Your task to perform on an android device: check android version Image 0: 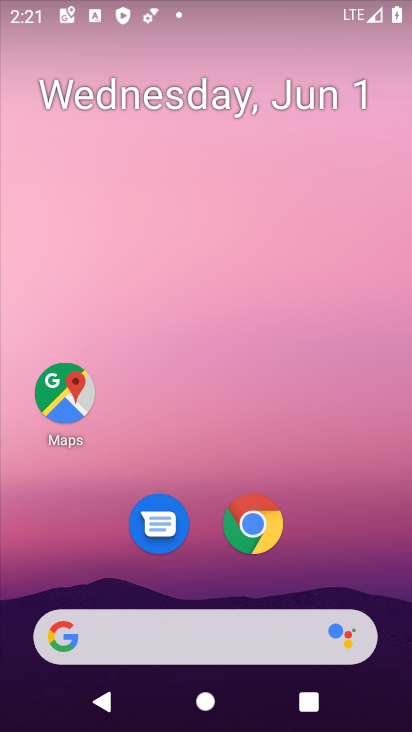
Step 0: drag from (321, 534) to (294, 43)
Your task to perform on an android device: check android version Image 1: 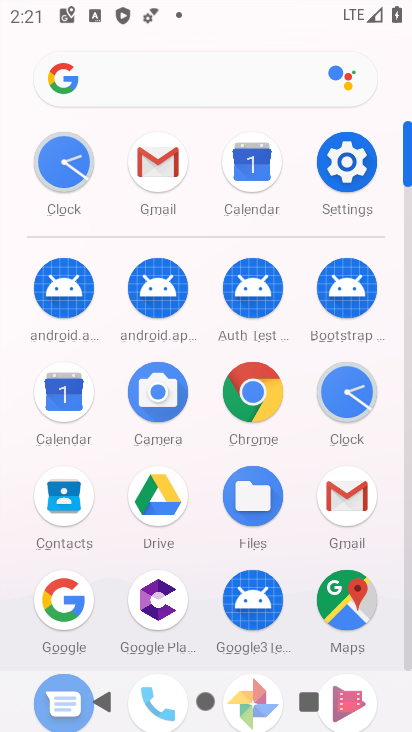
Step 1: click (362, 155)
Your task to perform on an android device: check android version Image 2: 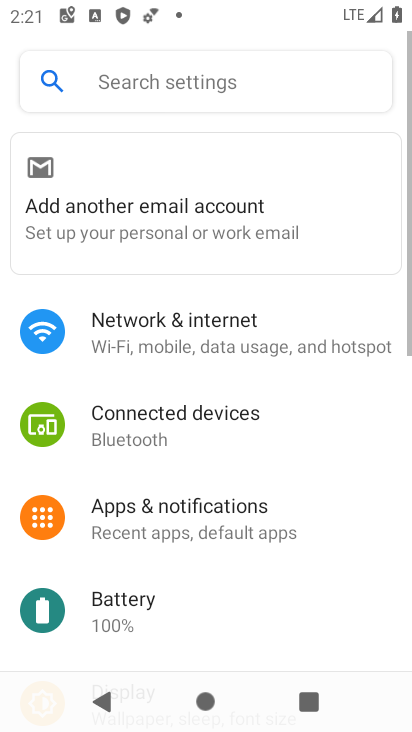
Step 2: drag from (245, 629) to (186, 19)
Your task to perform on an android device: check android version Image 3: 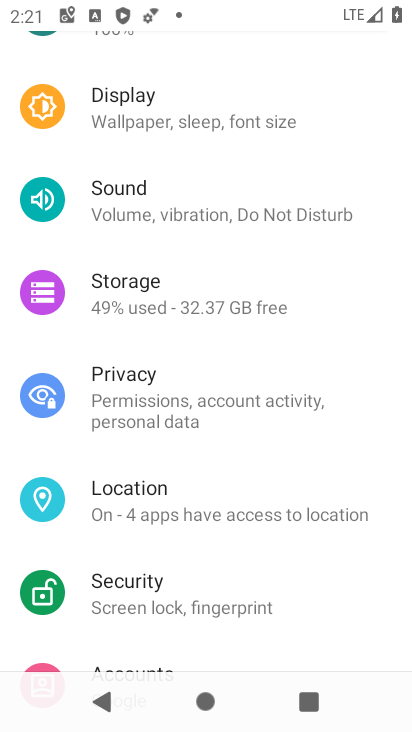
Step 3: drag from (261, 563) to (275, 16)
Your task to perform on an android device: check android version Image 4: 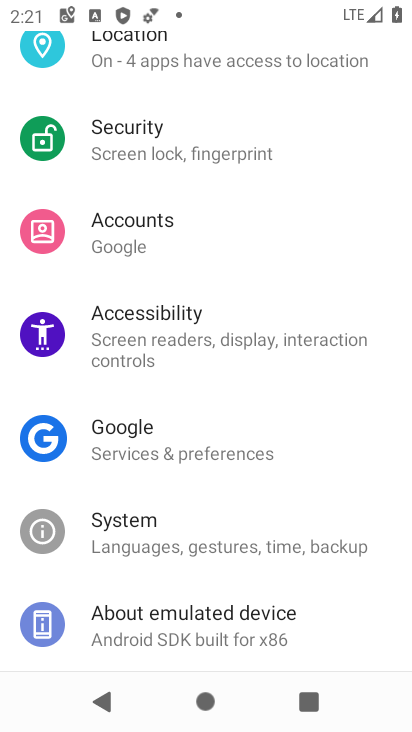
Step 4: click (222, 608)
Your task to perform on an android device: check android version Image 5: 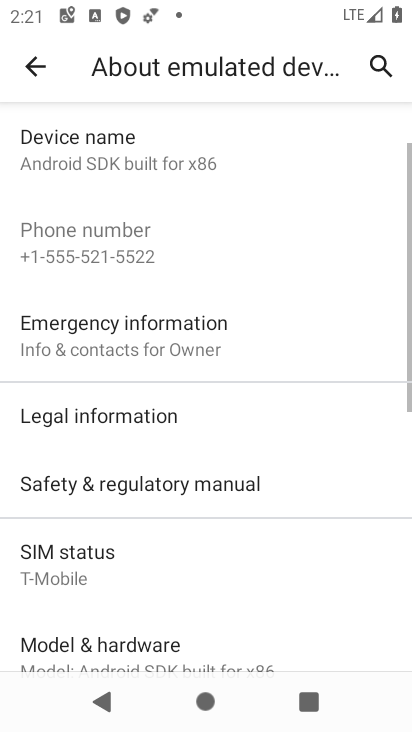
Step 5: drag from (238, 582) to (226, 201)
Your task to perform on an android device: check android version Image 6: 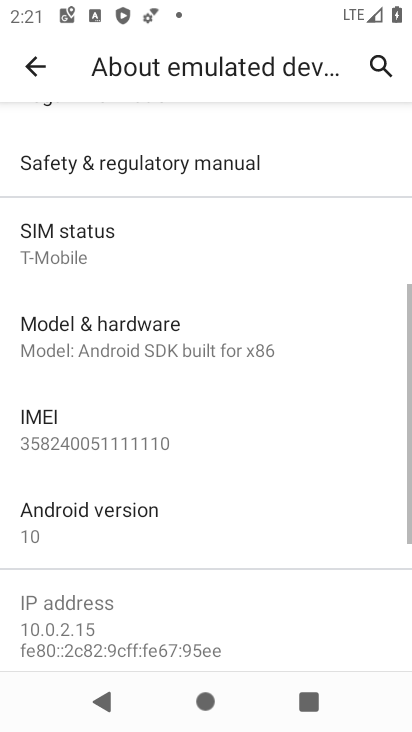
Step 6: click (142, 521)
Your task to perform on an android device: check android version Image 7: 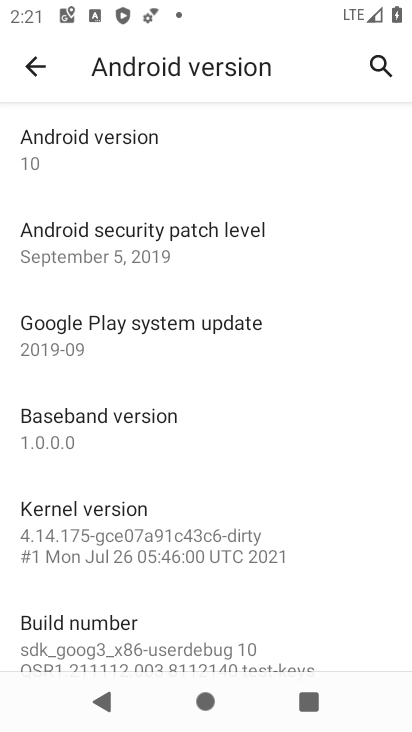
Step 7: task complete